Your task to perform on an android device: uninstall "Duolingo: language lessons" Image 0: 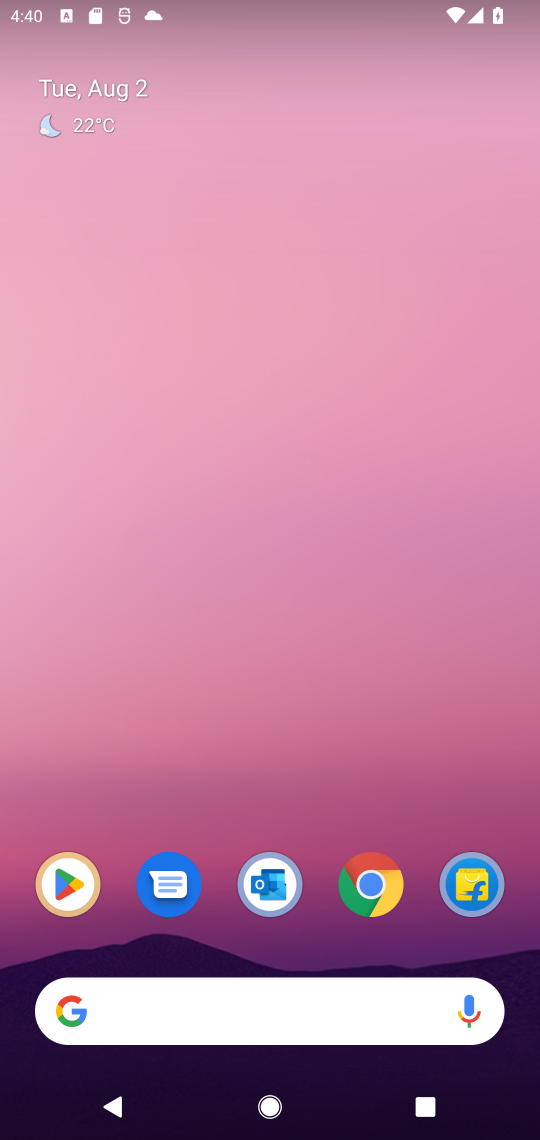
Step 0: click (53, 876)
Your task to perform on an android device: uninstall "Duolingo: language lessons" Image 1: 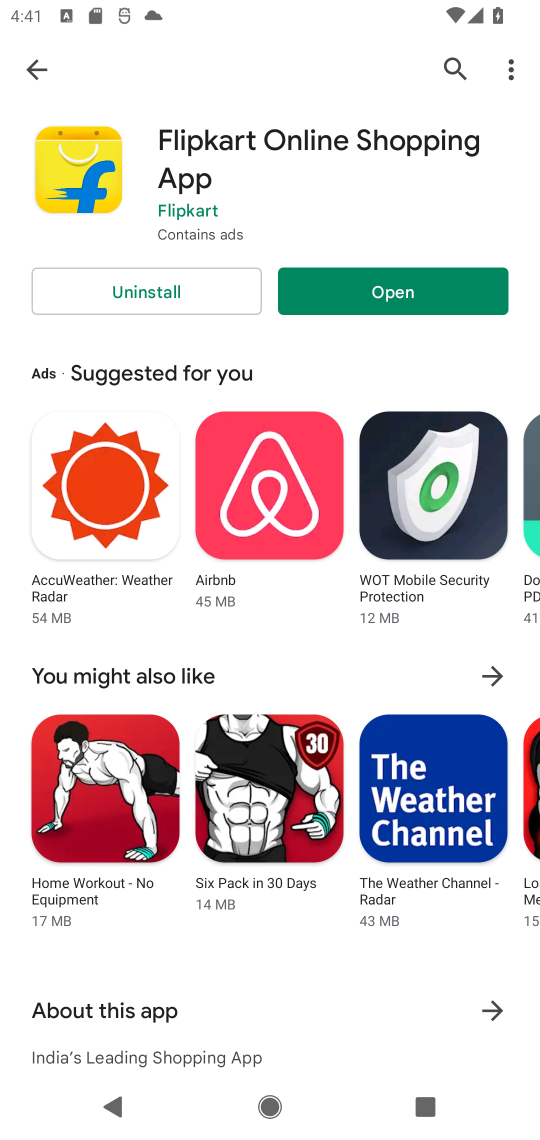
Step 1: click (40, 72)
Your task to perform on an android device: uninstall "Duolingo: language lessons" Image 2: 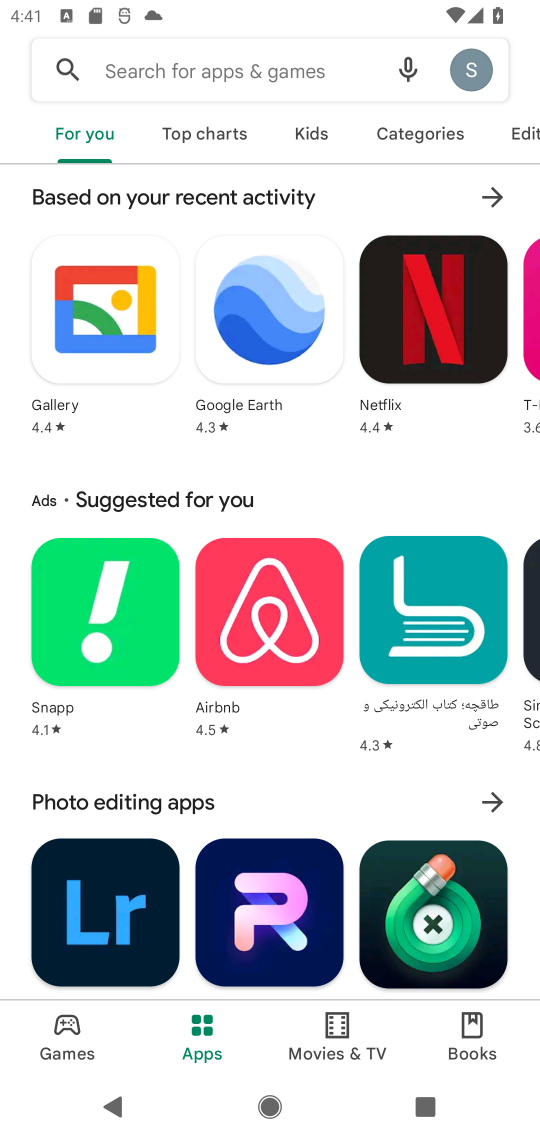
Step 2: click (157, 73)
Your task to perform on an android device: uninstall "Duolingo: language lessons" Image 3: 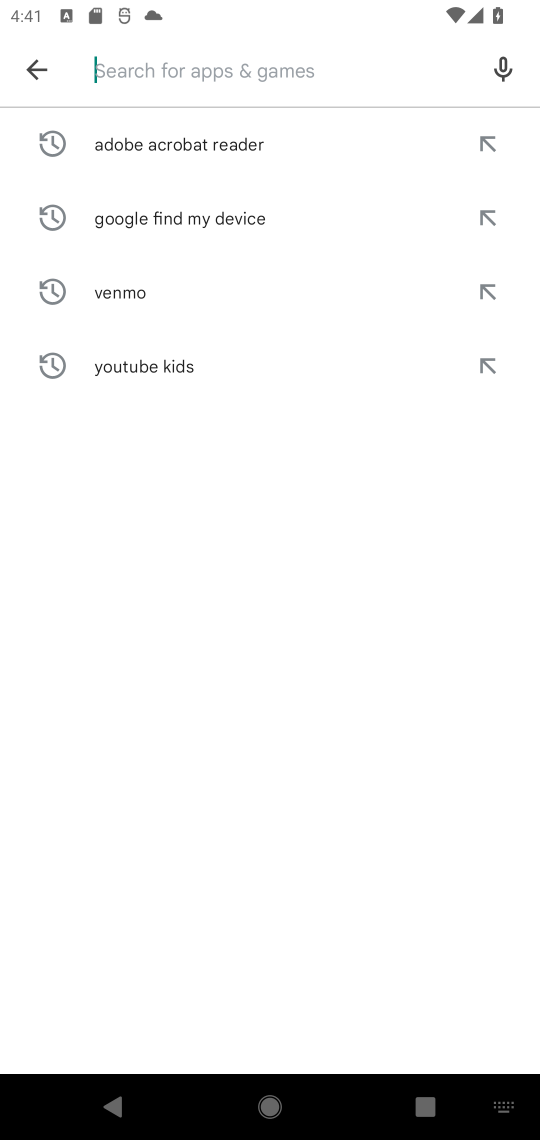
Step 3: type "Duolingo"
Your task to perform on an android device: uninstall "Duolingo: language lessons" Image 4: 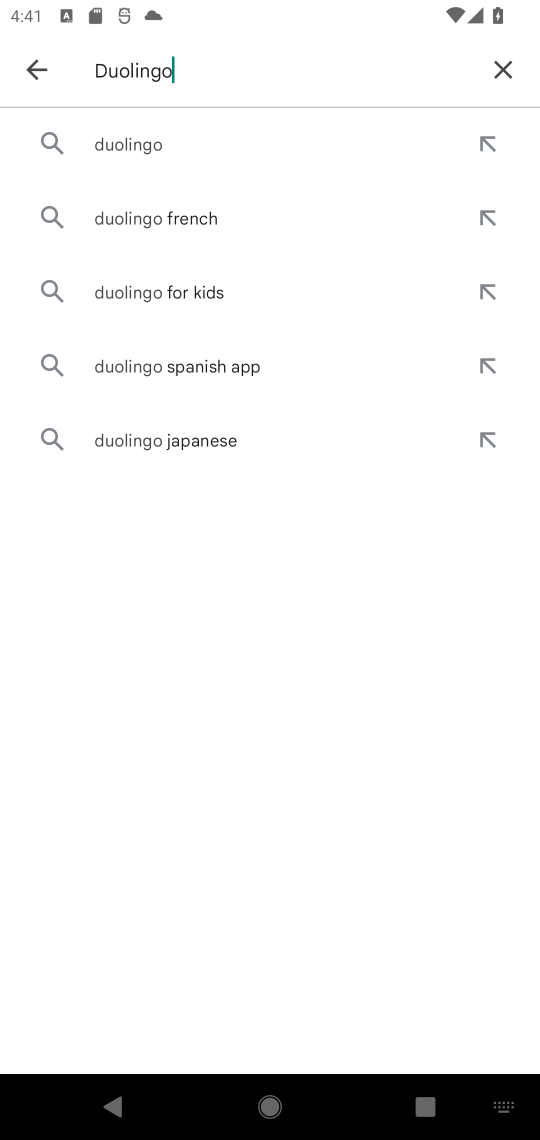
Step 4: click (140, 151)
Your task to perform on an android device: uninstall "Duolingo: language lessons" Image 5: 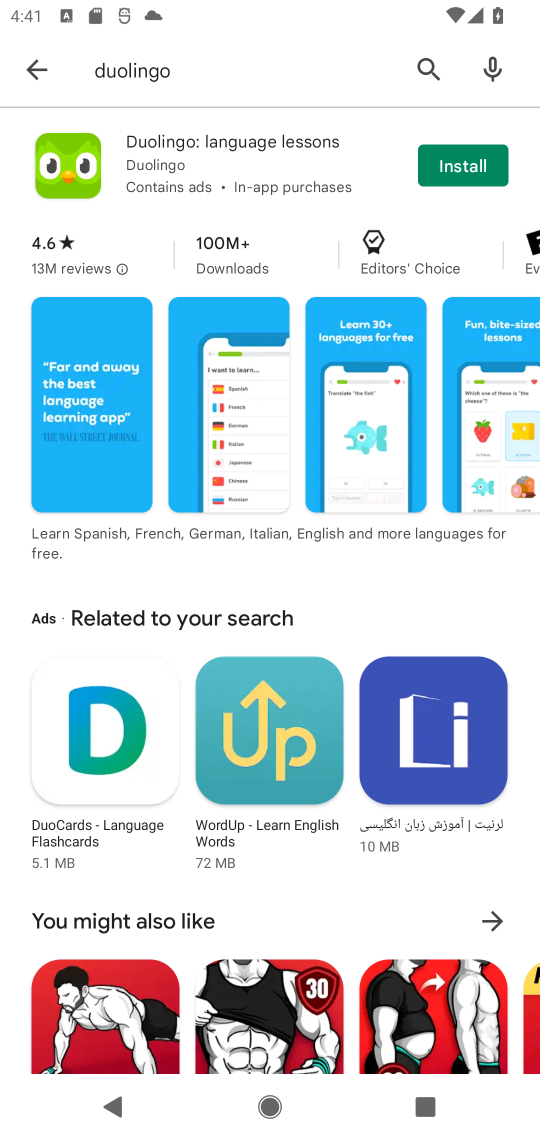
Step 5: task complete